Your task to perform on an android device: Open Maps and search for coffee Image 0: 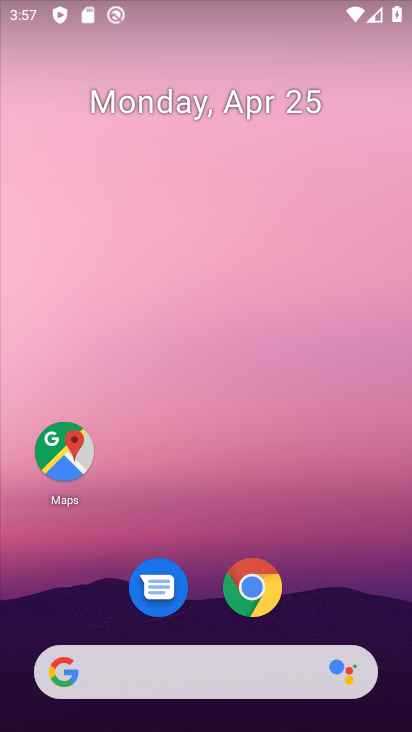
Step 0: click (65, 453)
Your task to perform on an android device: Open Maps and search for coffee Image 1: 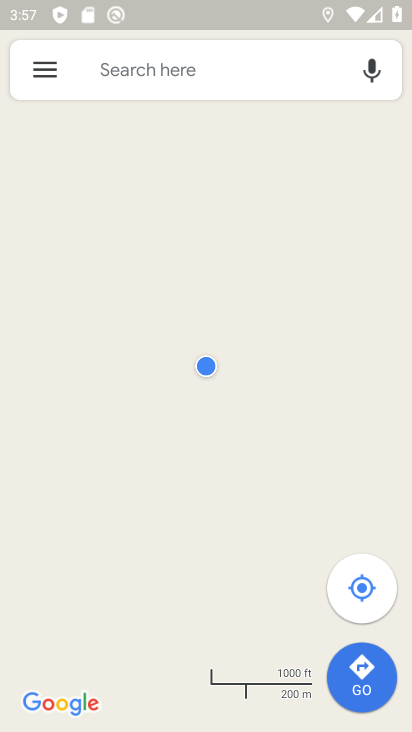
Step 1: click (156, 68)
Your task to perform on an android device: Open Maps and search for coffee Image 2: 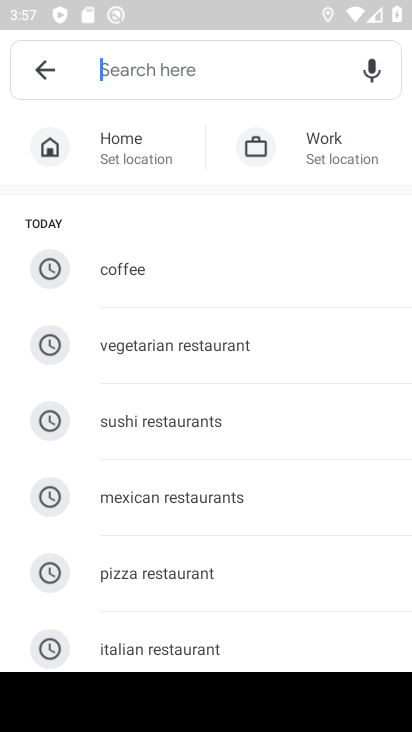
Step 2: type "coffee"
Your task to perform on an android device: Open Maps and search for coffee Image 3: 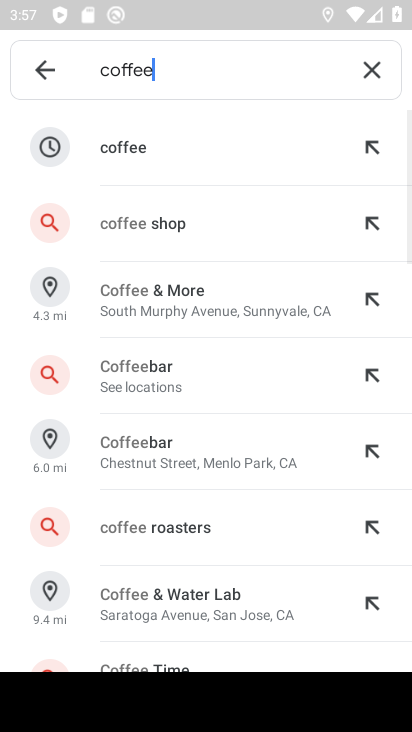
Step 3: click (127, 145)
Your task to perform on an android device: Open Maps and search for coffee Image 4: 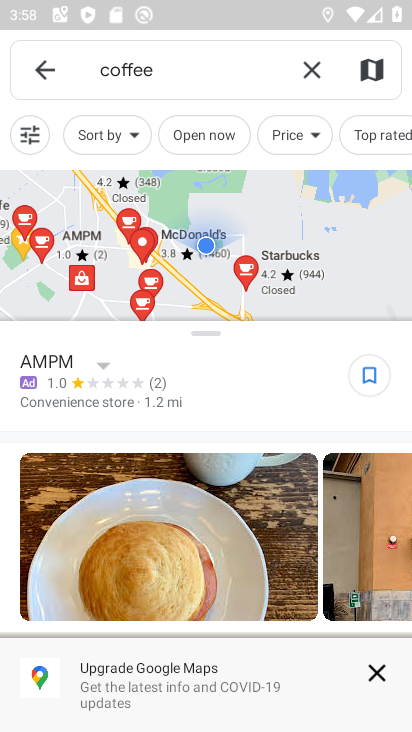
Step 4: task complete